Your task to perform on an android device: Open location settings Image 0: 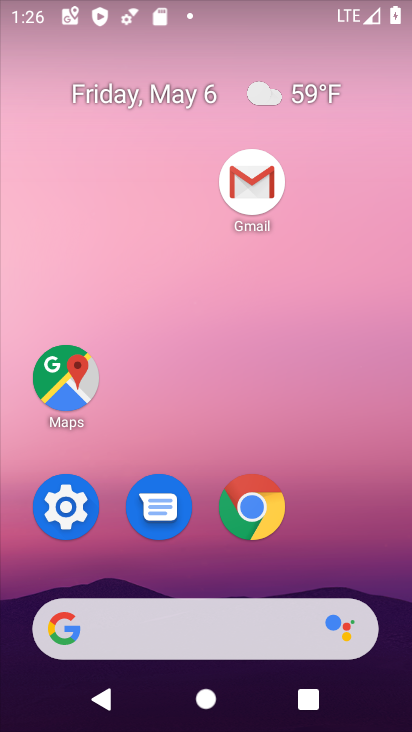
Step 0: click (58, 509)
Your task to perform on an android device: Open location settings Image 1: 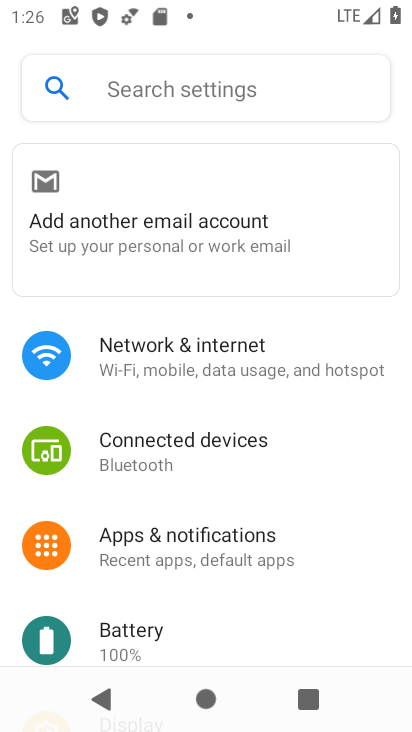
Step 1: drag from (221, 575) to (218, 190)
Your task to perform on an android device: Open location settings Image 2: 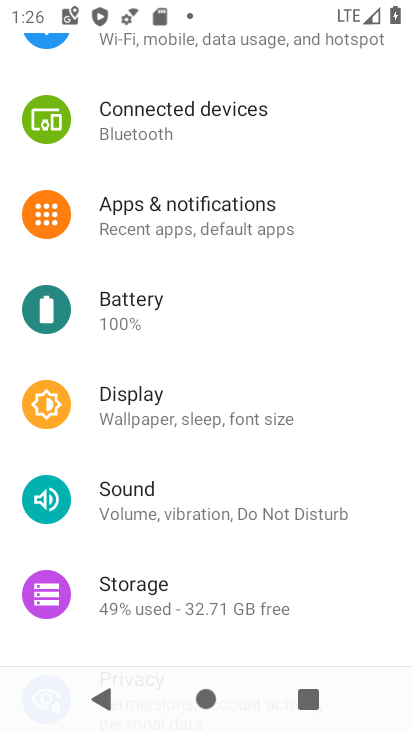
Step 2: drag from (215, 532) to (231, 77)
Your task to perform on an android device: Open location settings Image 3: 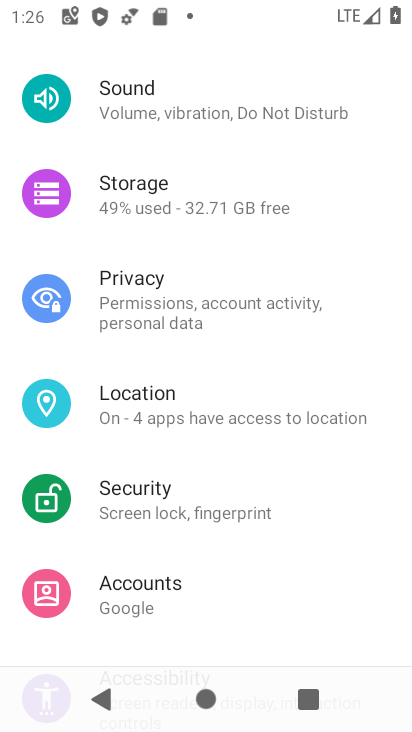
Step 3: click (142, 392)
Your task to perform on an android device: Open location settings Image 4: 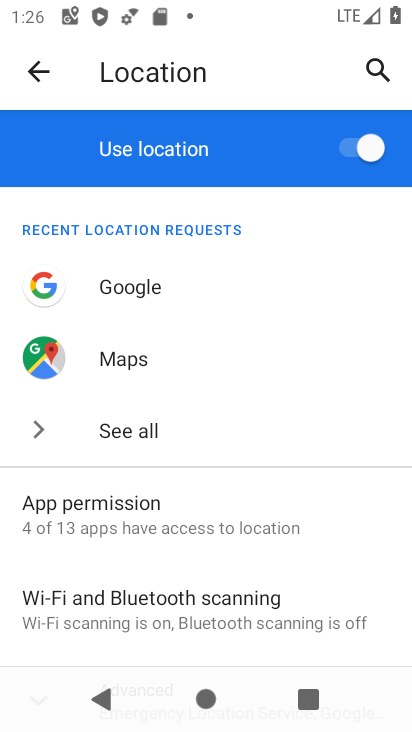
Step 4: task complete